Your task to perform on an android device: add a contact Image 0: 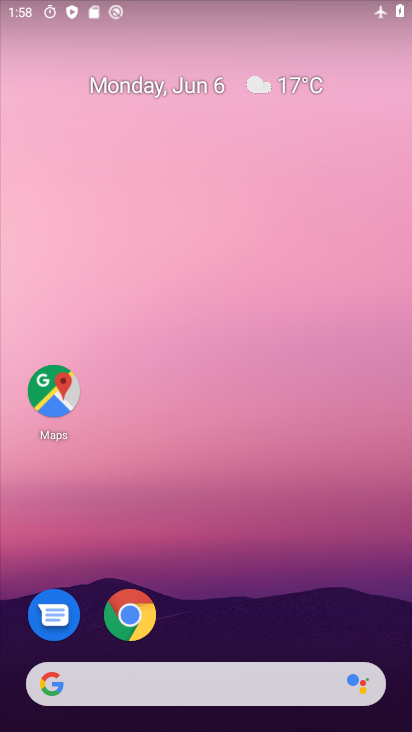
Step 0: drag from (261, 557) to (317, 227)
Your task to perform on an android device: add a contact Image 1: 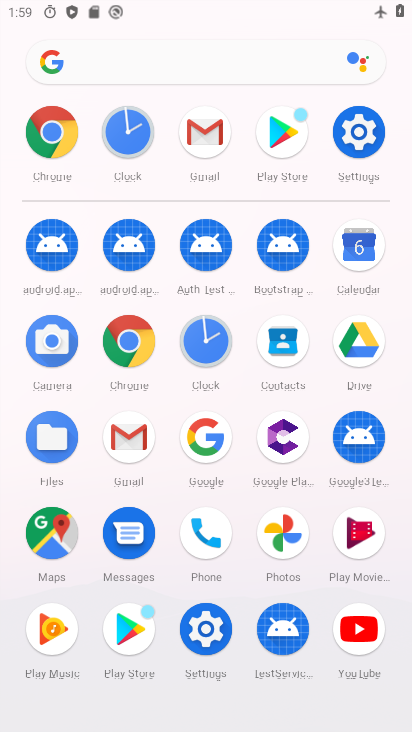
Step 1: click (275, 332)
Your task to perform on an android device: add a contact Image 2: 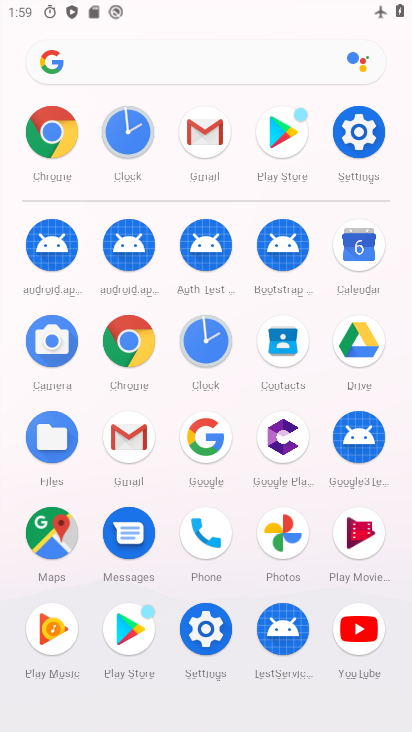
Step 2: click (275, 332)
Your task to perform on an android device: add a contact Image 3: 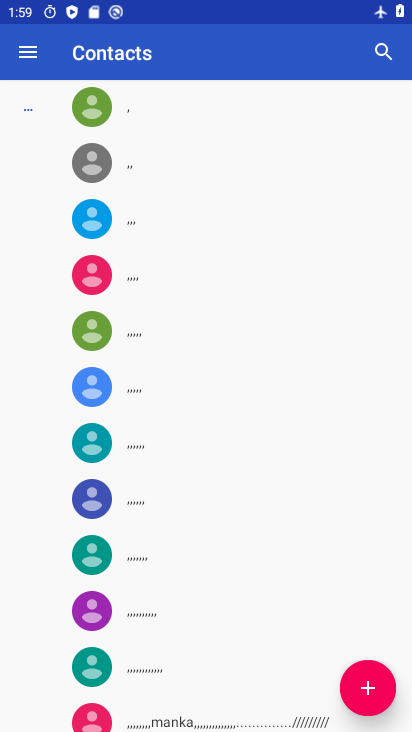
Step 3: drag from (207, 589) to (260, 390)
Your task to perform on an android device: add a contact Image 4: 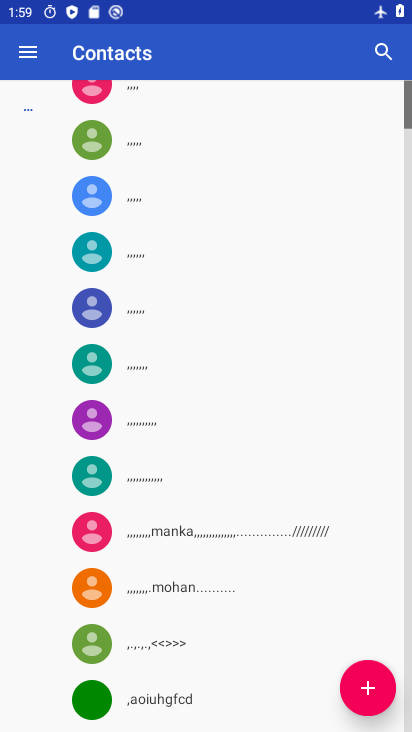
Step 4: click (379, 692)
Your task to perform on an android device: add a contact Image 5: 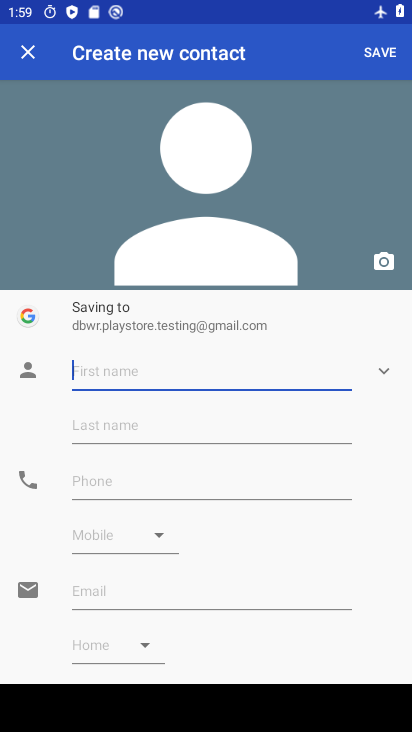
Step 5: click (130, 382)
Your task to perform on an android device: add a contact Image 6: 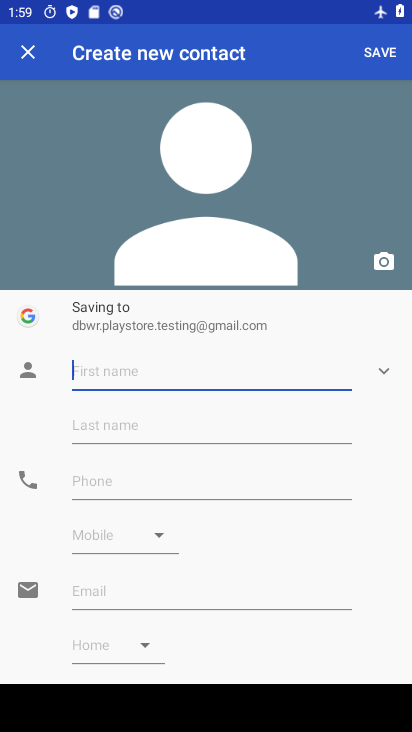
Step 6: type ""
Your task to perform on an android device: add a contact Image 7: 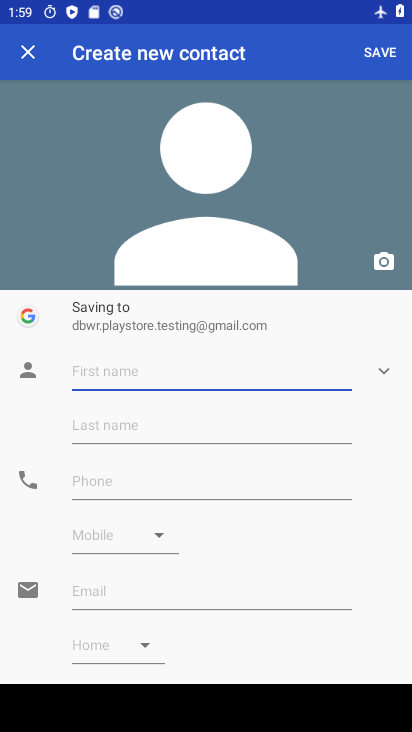
Step 7: type "njjh"
Your task to perform on an android device: add a contact Image 8: 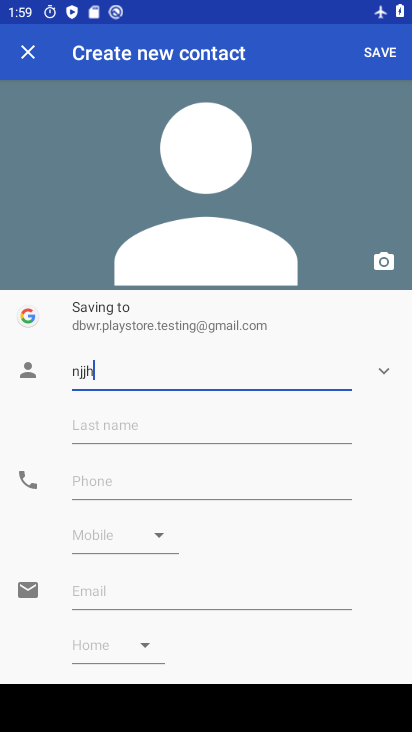
Step 8: click (380, 51)
Your task to perform on an android device: add a contact Image 9: 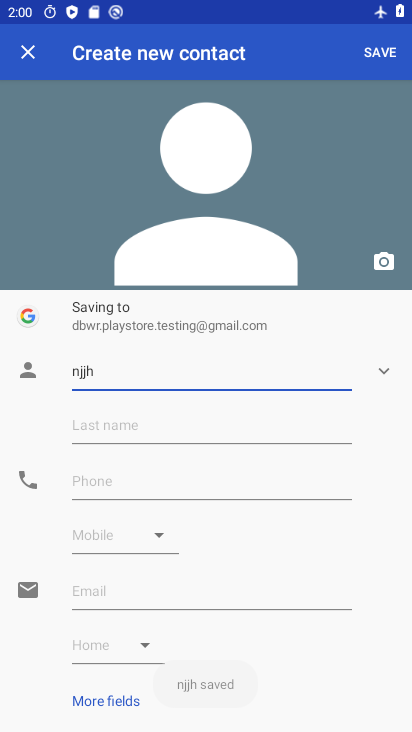
Step 9: task complete